Your task to perform on an android device: Open the calendar and show me this week's events? Image 0: 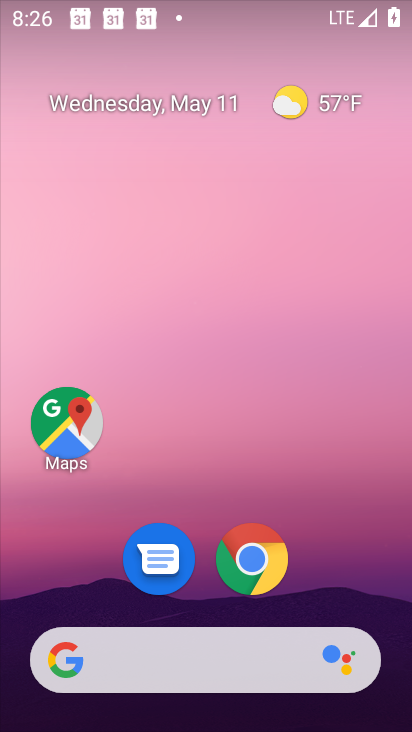
Step 0: press home button
Your task to perform on an android device: Open the calendar and show me this week's events? Image 1: 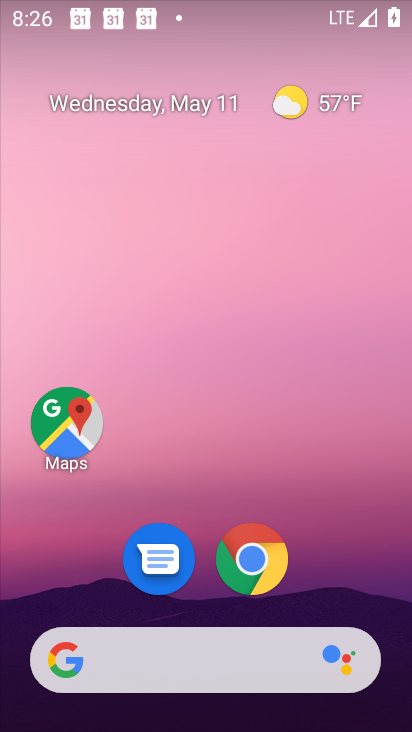
Step 1: drag from (356, 571) to (367, 26)
Your task to perform on an android device: Open the calendar and show me this week's events? Image 2: 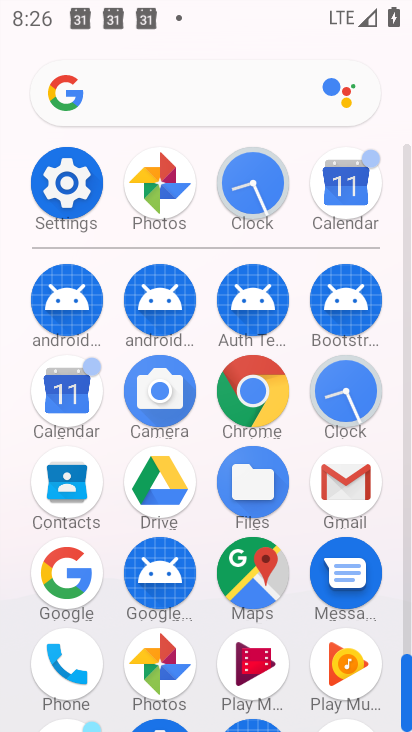
Step 2: click (59, 394)
Your task to perform on an android device: Open the calendar and show me this week's events? Image 3: 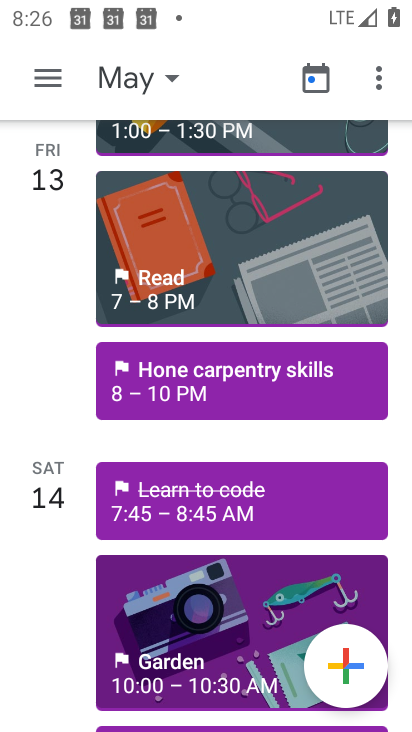
Step 3: task complete